Your task to perform on an android device: Open Chrome and go to the settings page Image 0: 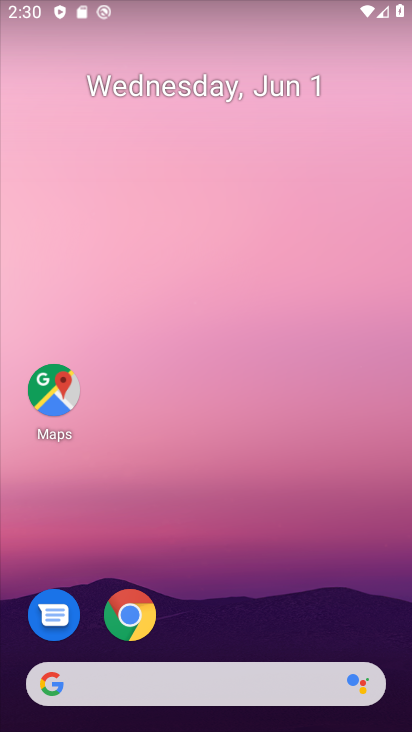
Step 0: drag from (265, 620) to (196, 192)
Your task to perform on an android device: Open Chrome and go to the settings page Image 1: 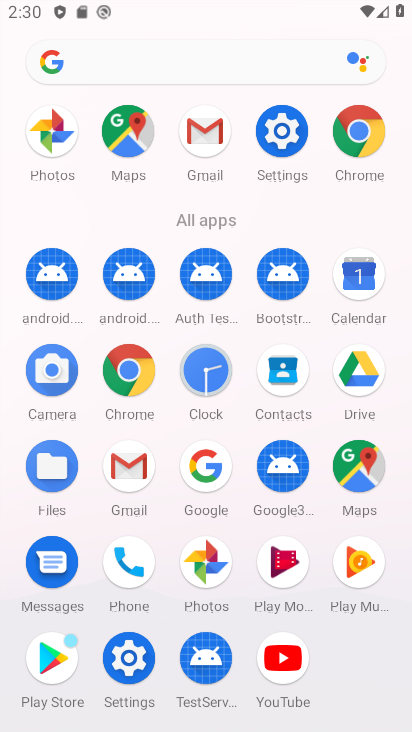
Step 1: click (357, 151)
Your task to perform on an android device: Open Chrome and go to the settings page Image 2: 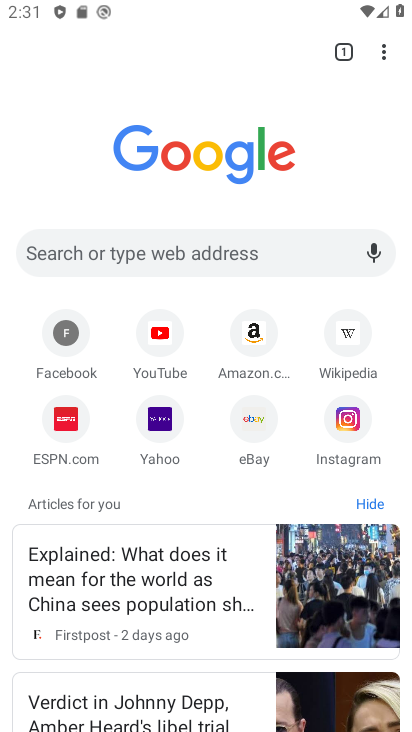
Step 2: click (386, 59)
Your task to perform on an android device: Open Chrome and go to the settings page Image 3: 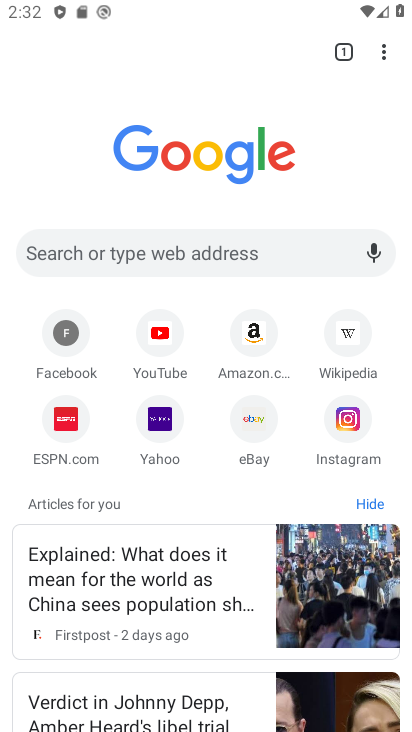
Step 3: click (384, 48)
Your task to perform on an android device: Open Chrome and go to the settings page Image 4: 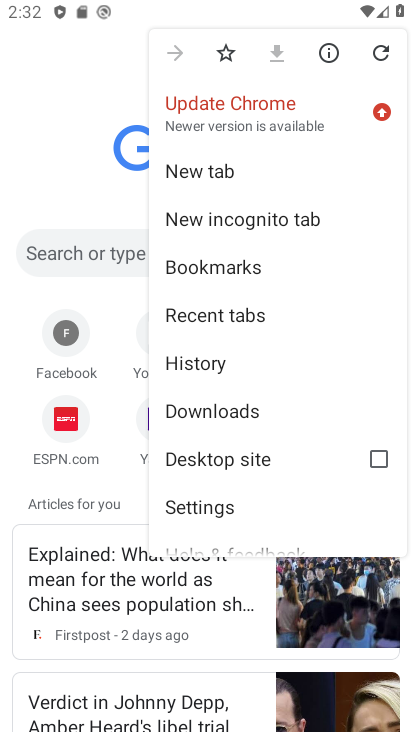
Step 4: click (225, 512)
Your task to perform on an android device: Open Chrome and go to the settings page Image 5: 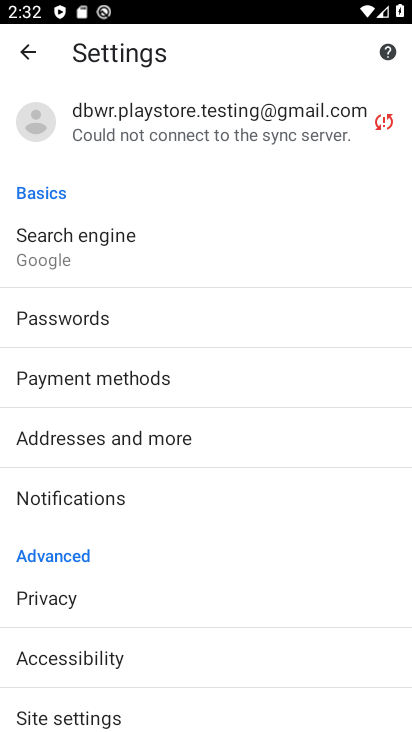
Step 5: task complete